Your task to perform on an android device: Do I have any events this weekend? Image 0: 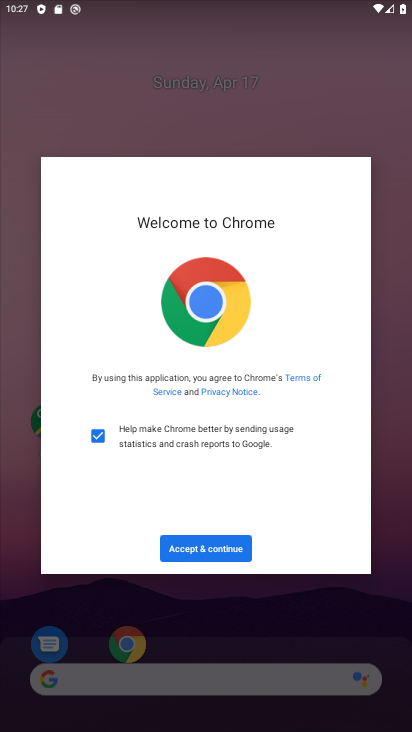
Step 0: click (218, 542)
Your task to perform on an android device: Do I have any events this weekend? Image 1: 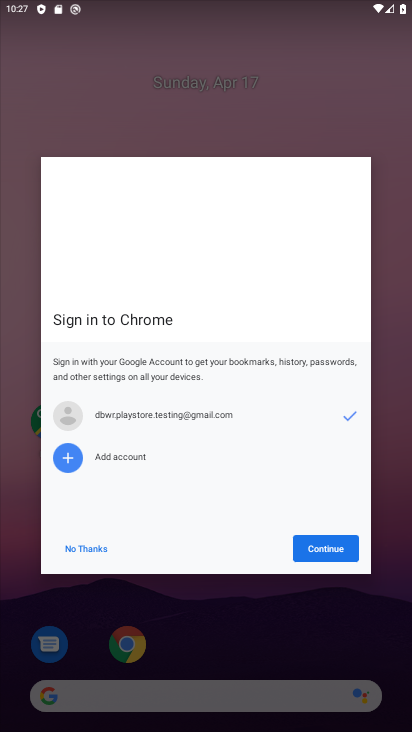
Step 1: click (340, 552)
Your task to perform on an android device: Do I have any events this weekend? Image 2: 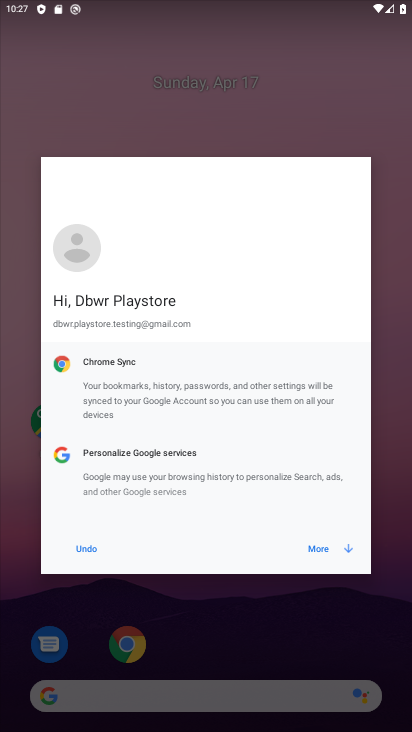
Step 2: press home button
Your task to perform on an android device: Do I have any events this weekend? Image 3: 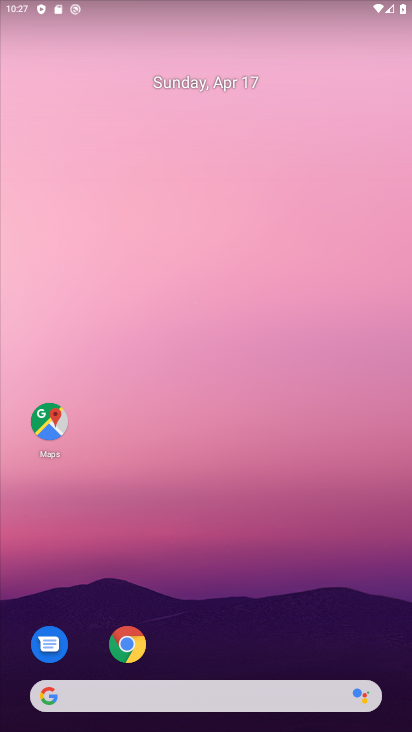
Step 3: drag from (185, 644) to (248, 126)
Your task to perform on an android device: Do I have any events this weekend? Image 4: 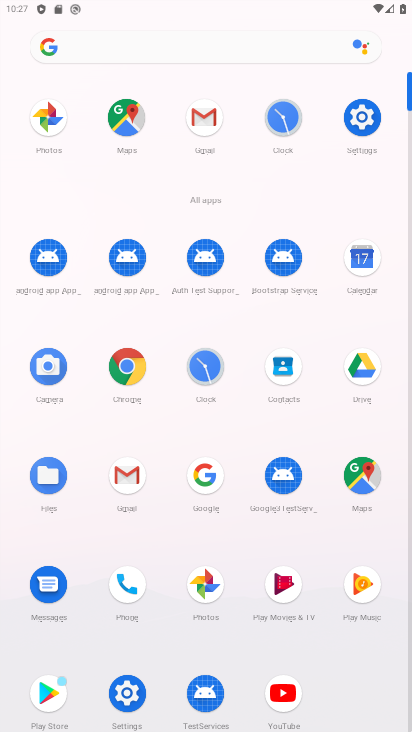
Step 4: click (365, 266)
Your task to perform on an android device: Do I have any events this weekend? Image 5: 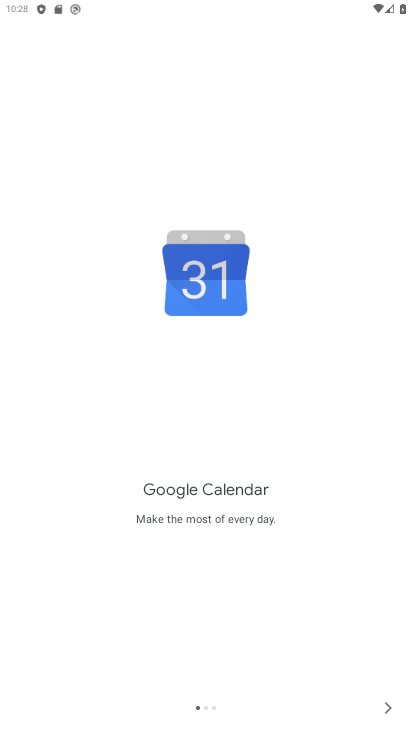
Step 5: click (388, 702)
Your task to perform on an android device: Do I have any events this weekend? Image 6: 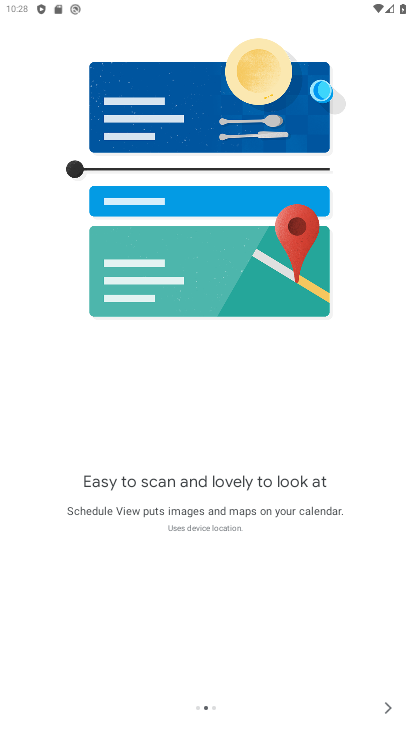
Step 6: click (383, 712)
Your task to perform on an android device: Do I have any events this weekend? Image 7: 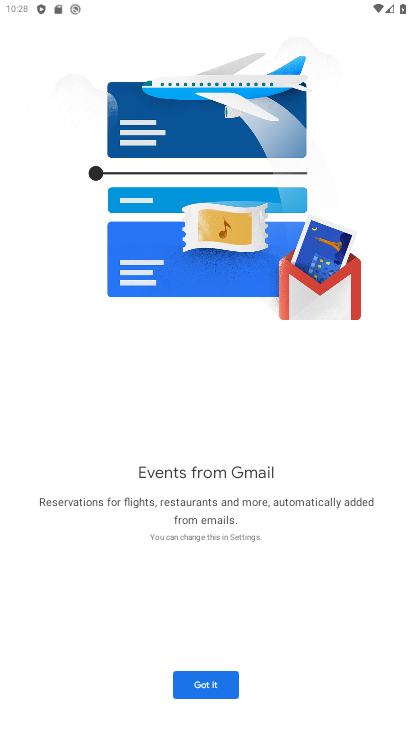
Step 7: click (204, 685)
Your task to perform on an android device: Do I have any events this weekend? Image 8: 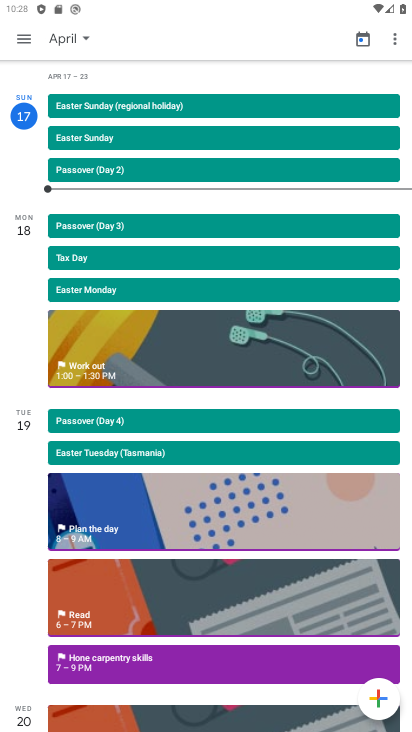
Step 8: click (21, 42)
Your task to perform on an android device: Do I have any events this weekend? Image 9: 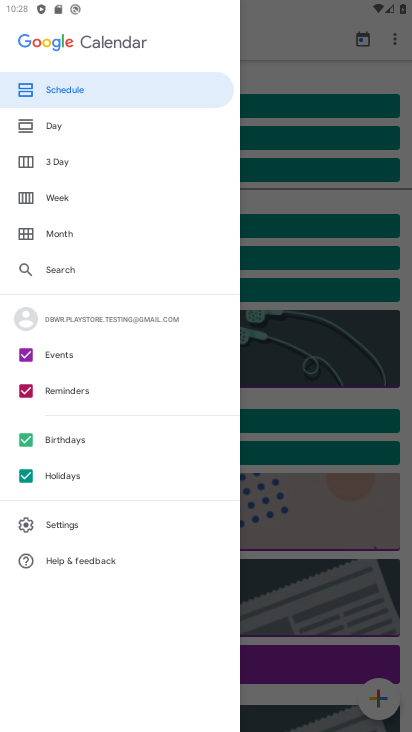
Step 9: click (26, 386)
Your task to perform on an android device: Do I have any events this weekend? Image 10: 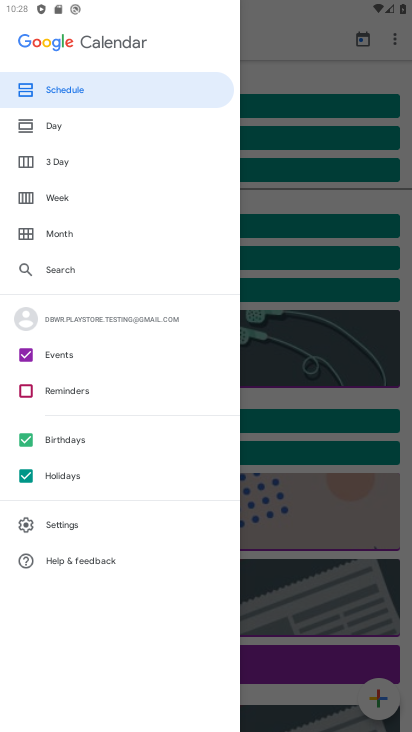
Step 10: click (24, 438)
Your task to perform on an android device: Do I have any events this weekend? Image 11: 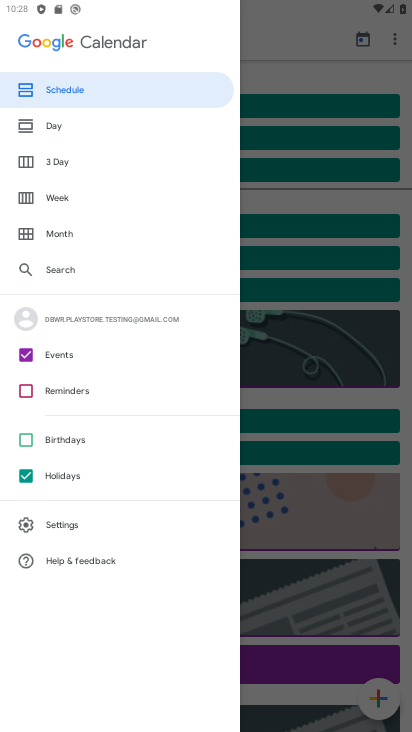
Step 11: click (23, 477)
Your task to perform on an android device: Do I have any events this weekend? Image 12: 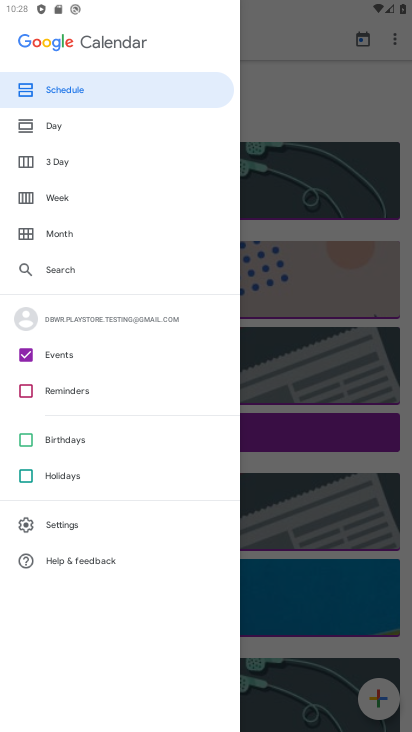
Step 12: click (70, 198)
Your task to perform on an android device: Do I have any events this weekend? Image 13: 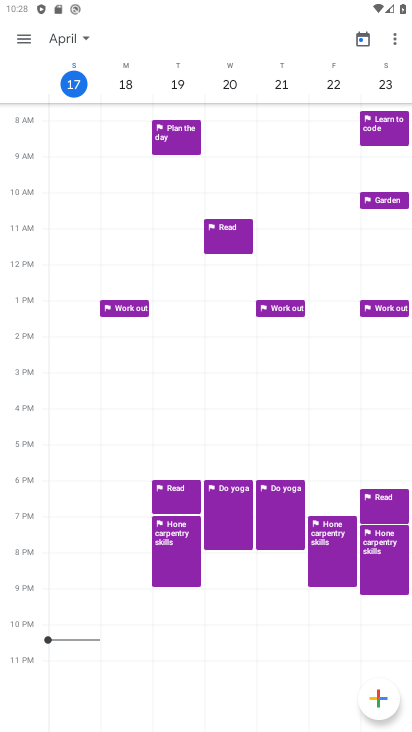
Step 13: task complete